Your task to perform on an android device: Go to privacy settings Image 0: 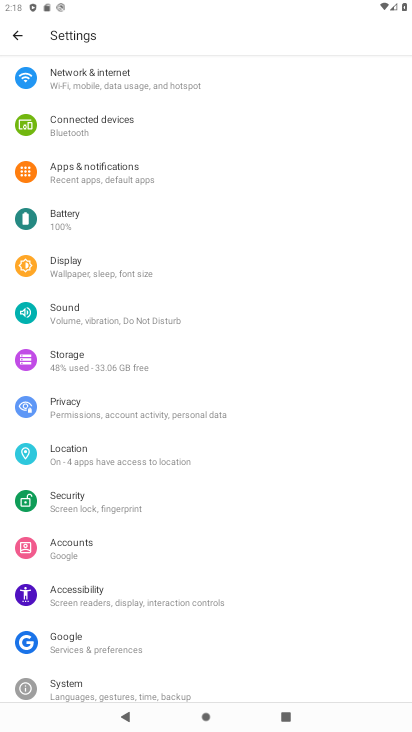
Step 0: press home button
Your task to perform on an android device: Go to privacy settings Image 1: 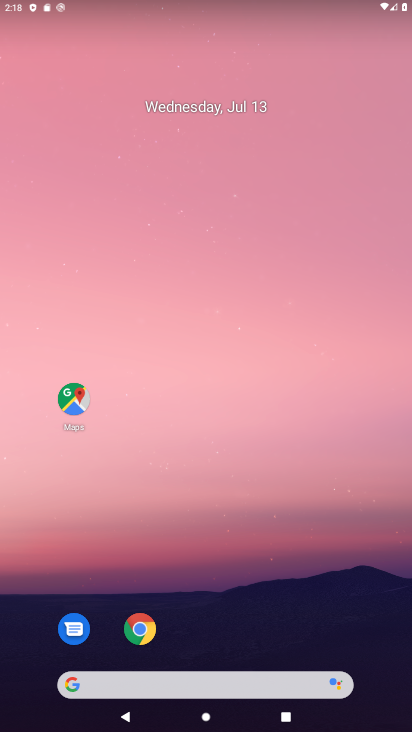
Step 1: click (139, 632)
Your task to perform on an android device: Go to privacy settings Image 2: 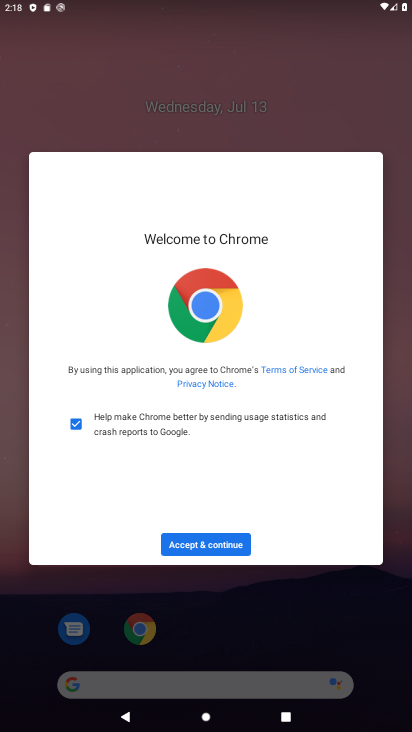
Step 2: click (225, 551)
Your task to perform on an android device: Go to privacy settings Image 3: 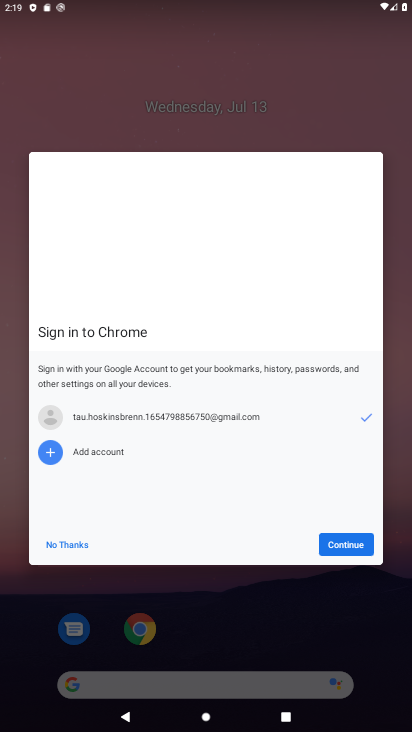
Step 3: click (368, 547)
Your task to perform on an android device: Go to privacy settings Image 4: 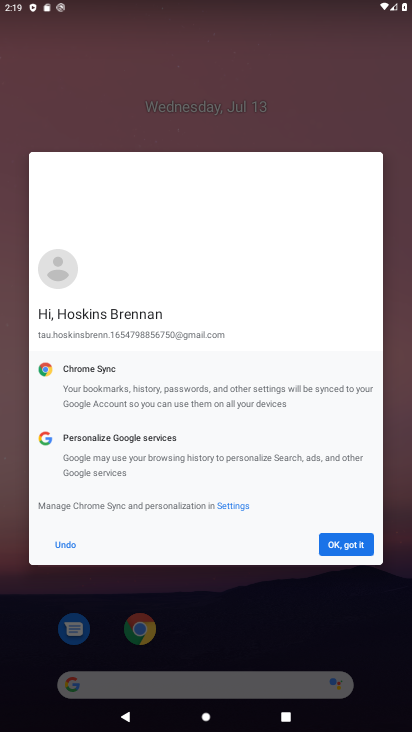
Step 4: click (354, 547)
Your task to perform on an android device: Go to privacy settings Image 5: 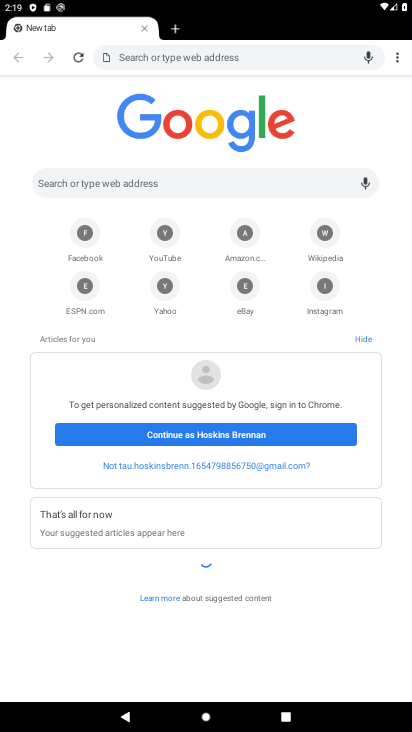
Step 5: drag from (406, 43) to (313, 267)
Your task to perform on an android device: Go to privacy settings Image 6: 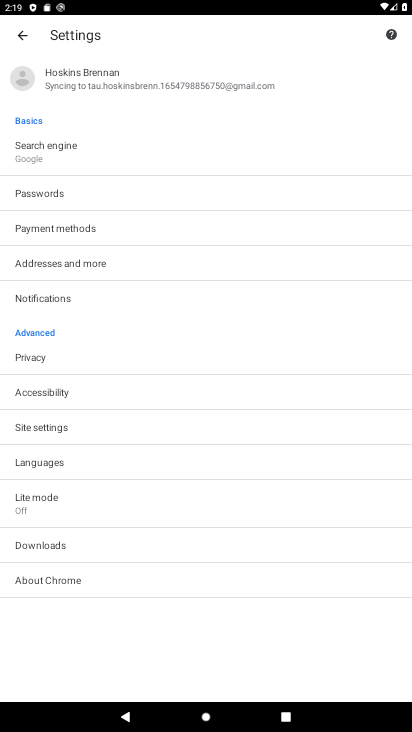
Step 6: click (128, 366)
Your task to perform on an android device: Go to privacy settings Image 7: 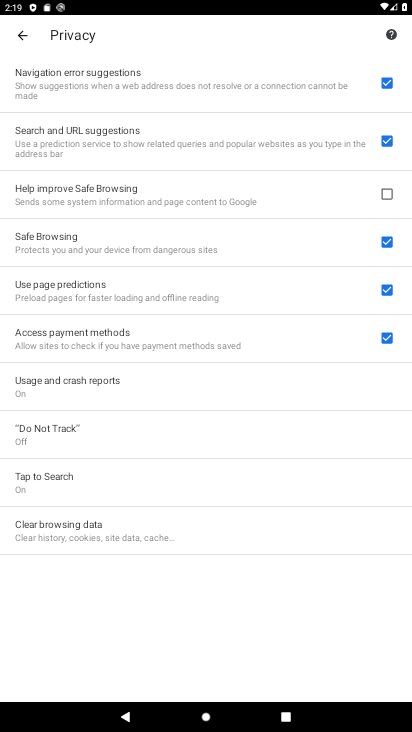
Step 7: task complete